Your task to perform on an android device: turn on improve location accuracy Image 0: 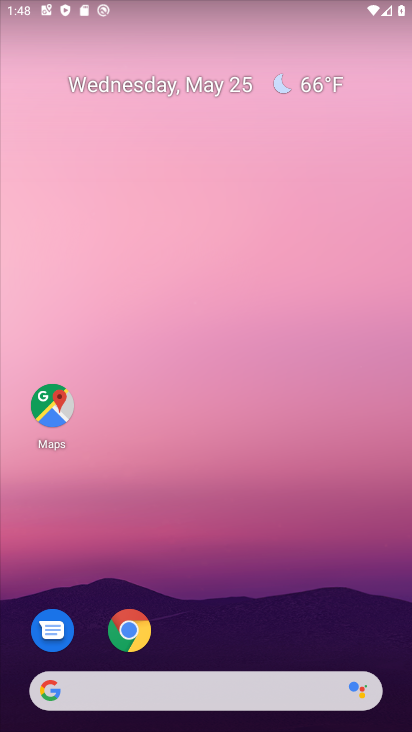
Step 0: drag from (227, 645) to (241, 171)
Your task to perform on an android device: turn on improve location accuracy Image 1: 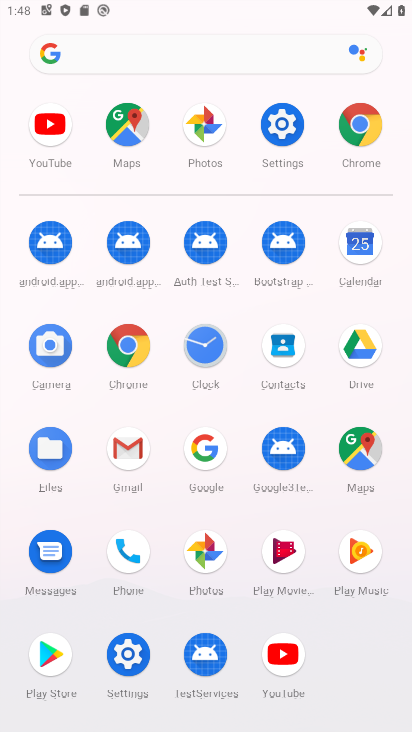
Step 1: click (282, 120)
Your task to perform on an android device: turn on improve location accuracy Image 2: 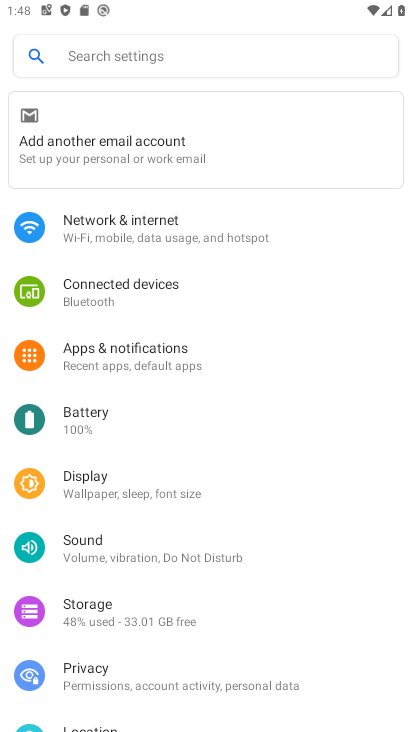
Step 2: drag from (146, 677) to (166, 312)
Your task to perform on an android device: turn on improve location accuracy Image 3: 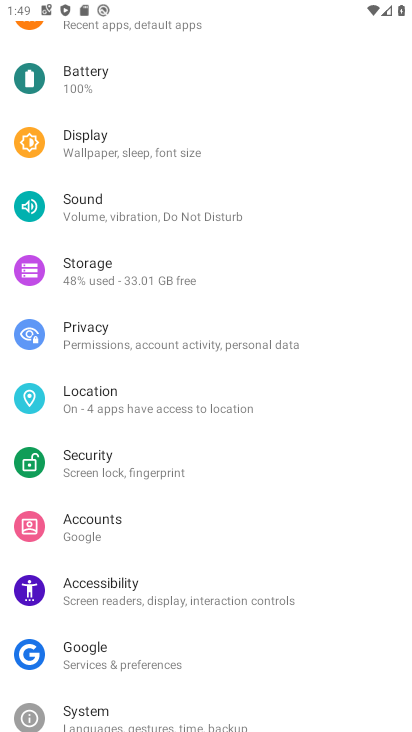
Step 3: click (133, 393)
Your task to perform on an android device: turn on improve location accuracy Image 4: 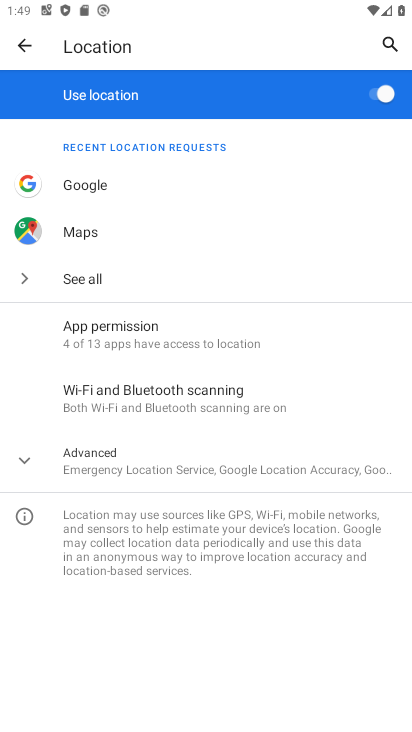
Step 4: click (25, 457)
Your task to perform on an android device: turn on improve location accuracy Image 5: 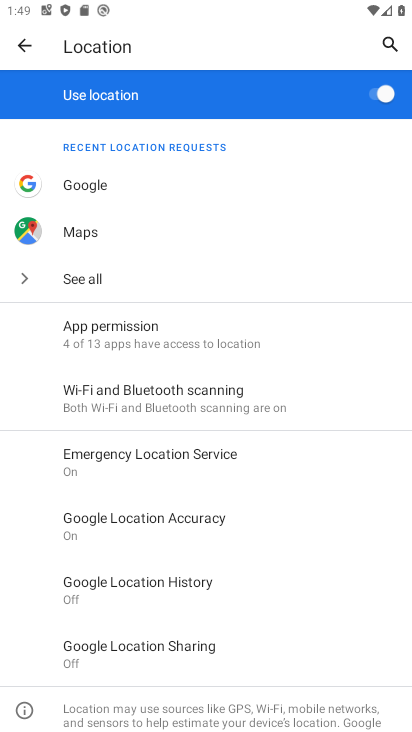
Step 5: click (194, 520)
Your task to perform on an android device: turn on improve location accuracy Image 6: 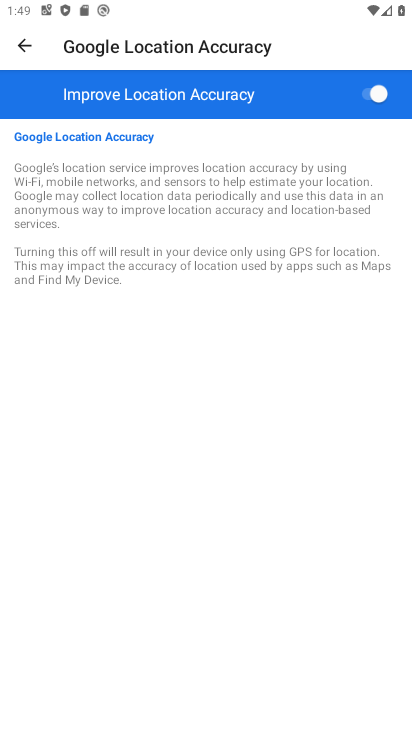
Step 6: task complete